Your task to perform on an android device: uninstall "Messages" Image 0: 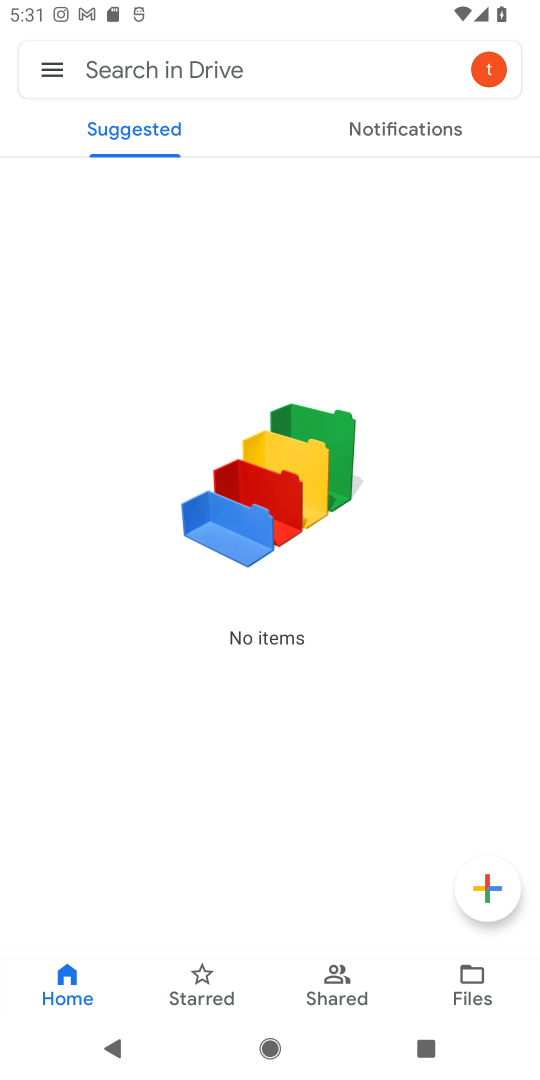
Step 0: press home button
Your task to perform on an android device: uninstall "Messages" Image 1: 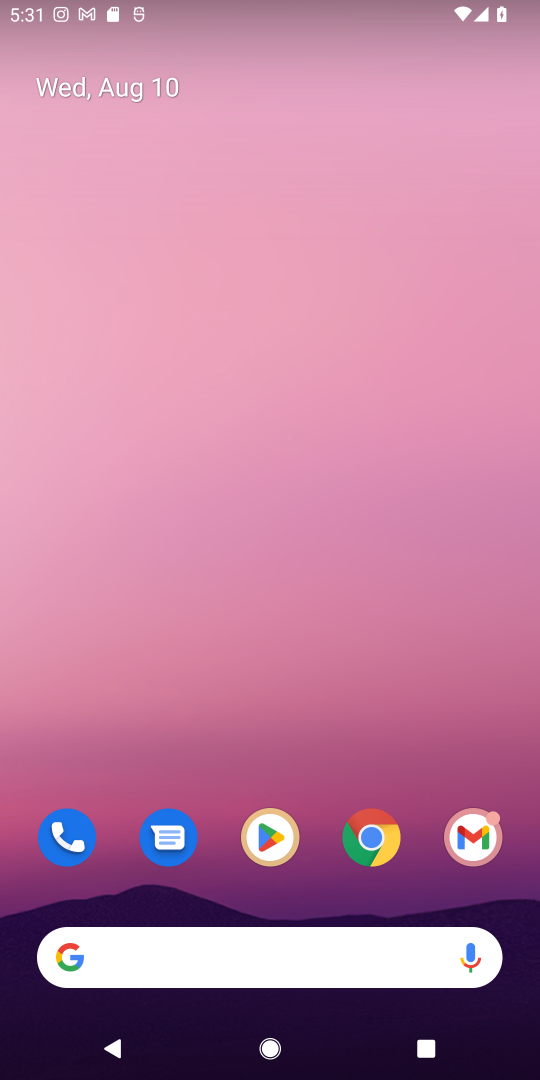
Step 1: click (276, 842)
Your task to perform on an android device: uninstall "Messages" Image 2: 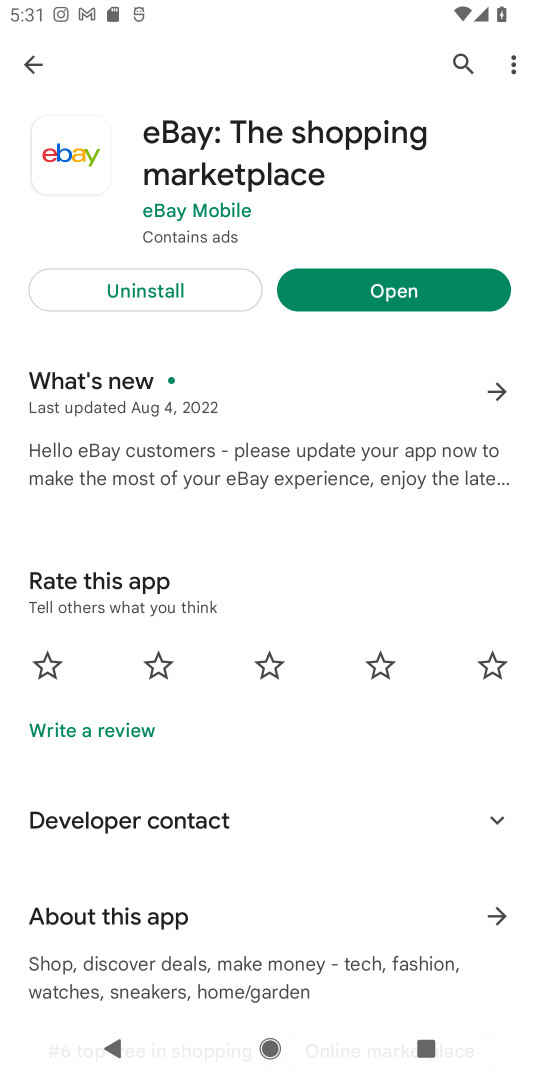
Step 2: click (460, 63)
Your task to perform on an android device: uninstall "Messages" Image 3: 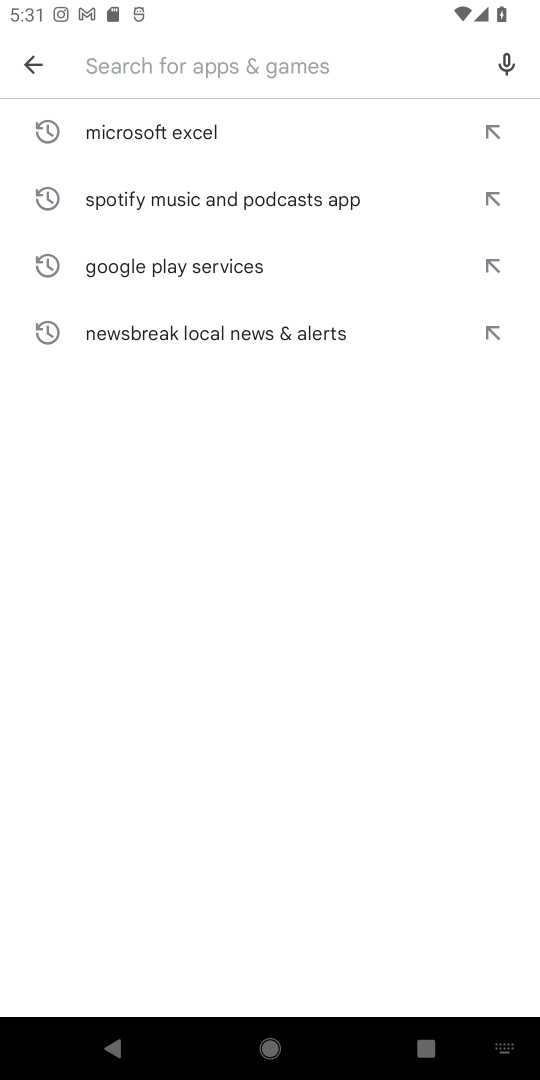
Step 3: type "Messages"
Your task to perform on an android device: uninstall "Messages" Image 4: 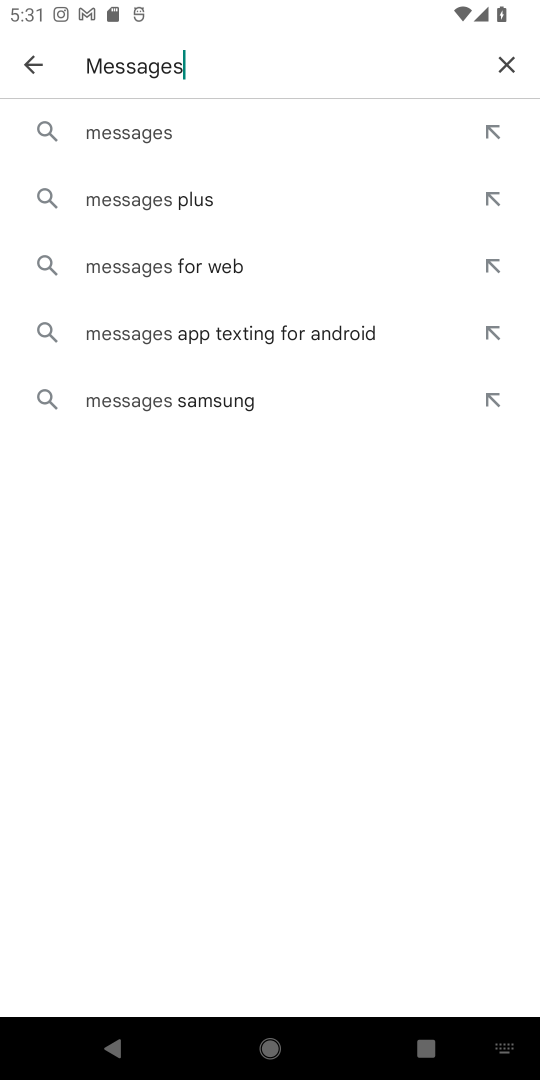
Step 4: click (138, 128)
Your task to perform on an android device: uninstall "Messages" Image 5: 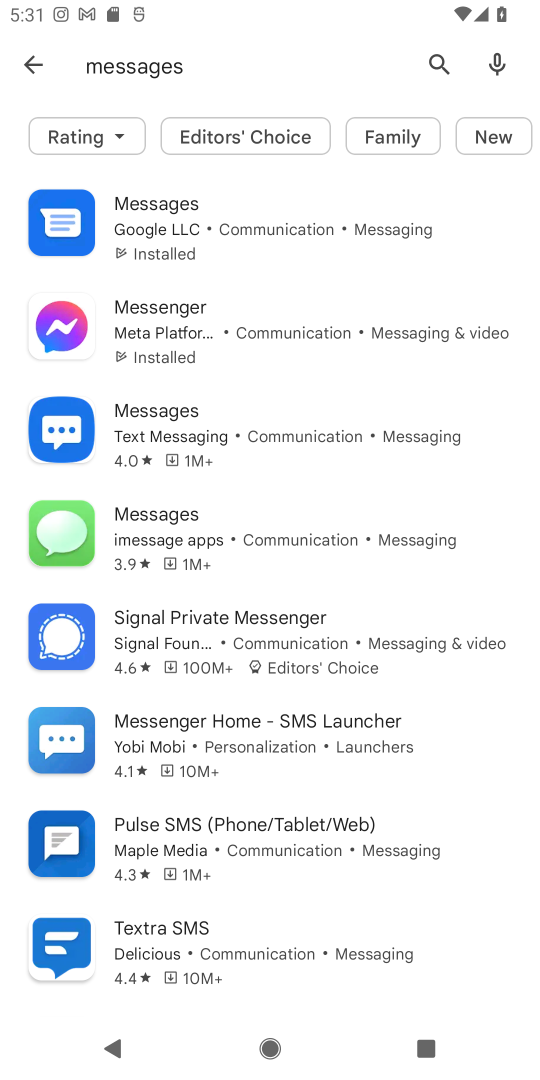
Step 5: click (177, 214)
Your task to perform on an android device: uninstall "Messages" Image 6: 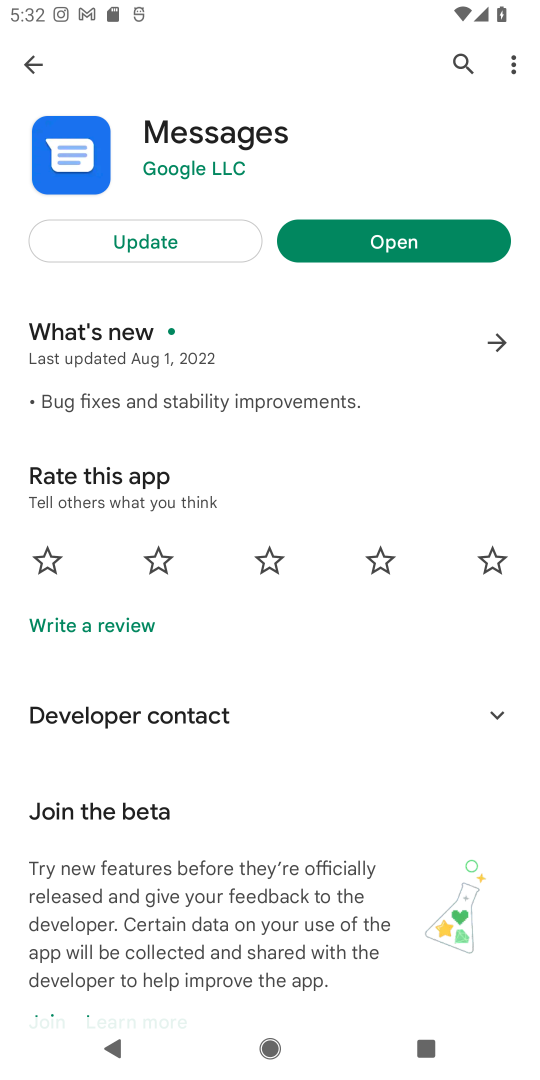
Step 6: task complete